Your task to perform on an android device: turn smart compose on in the gmail app Image 0: 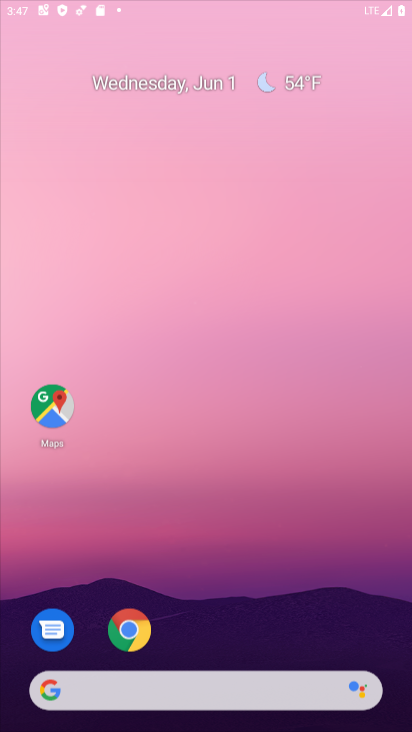
Step 0: press back button
Your task to perform on an android device: turn smart compose on in the gmail app Image 1: 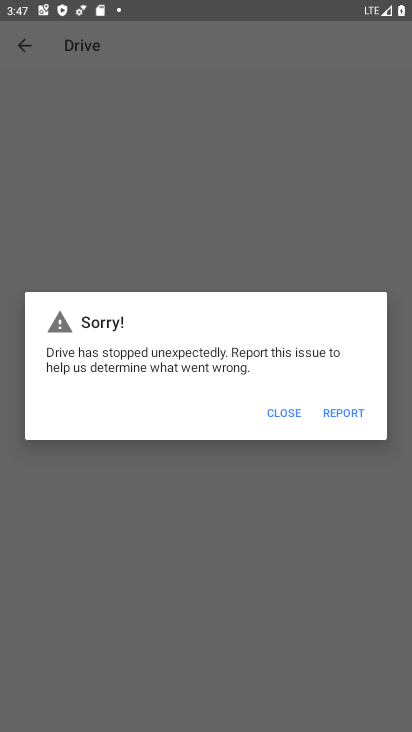
Step 1: press home button
Your task to perform on an android device: turn smart compose on in the gmail app Image 2: 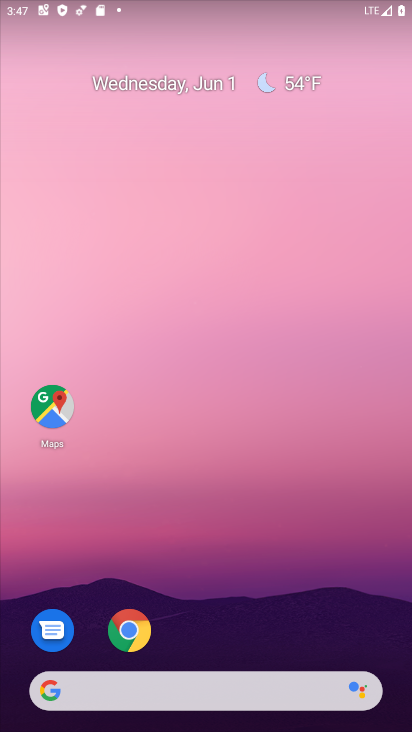
Step 2: drag from (269, 570) to (166, 2)
Your task to perform on an android device: turn smart compose on in the gmail app Image 3: 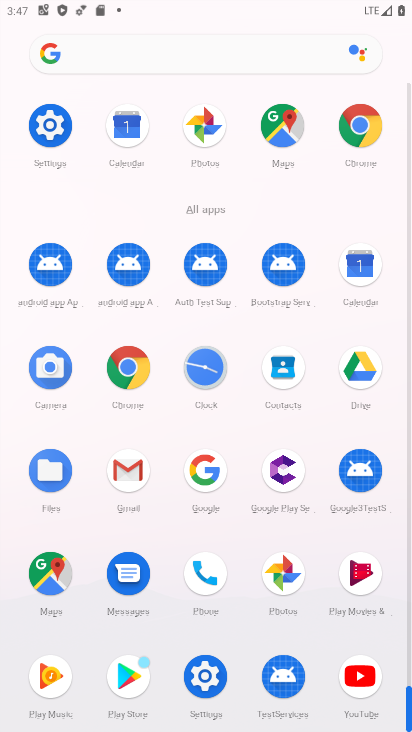
Step 3: drag from (14, 572) to (9, 182)
Your task to perform on an android device: turn smart compose on in the gmail app Image 4: 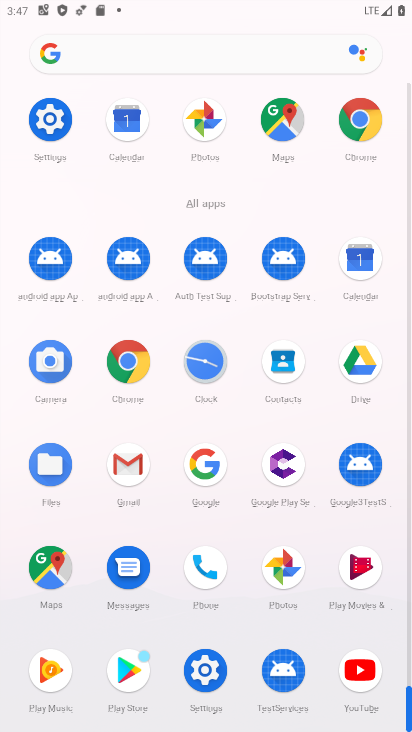
Step 4: click (124, 455)
Your task to perform on an android device: turn smart compose on in the gmail app Image 5: 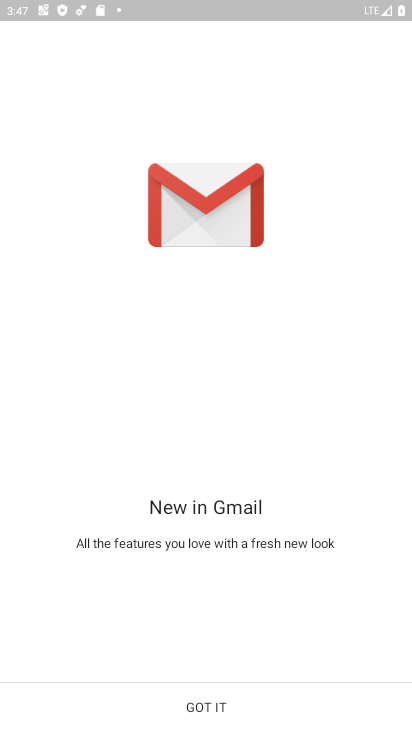
Step 5: click (204, 711)
Your task to perform on an android device: turn smart compose on in the gmail app Image 6: 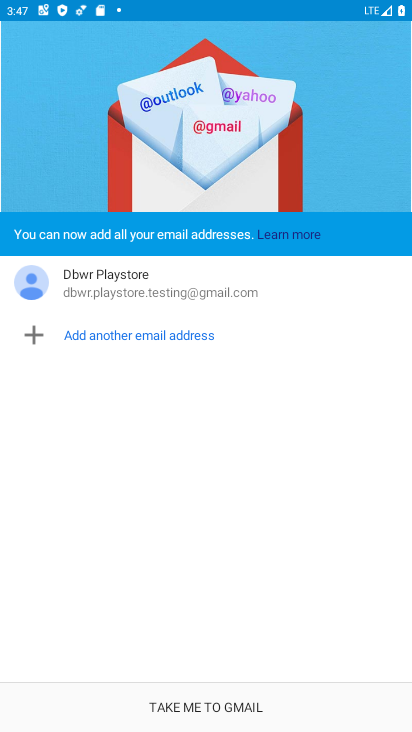
Step 6: click (205, 703)
Your task to perform on an android device: turn smart compose on in the gmail app Image 7: 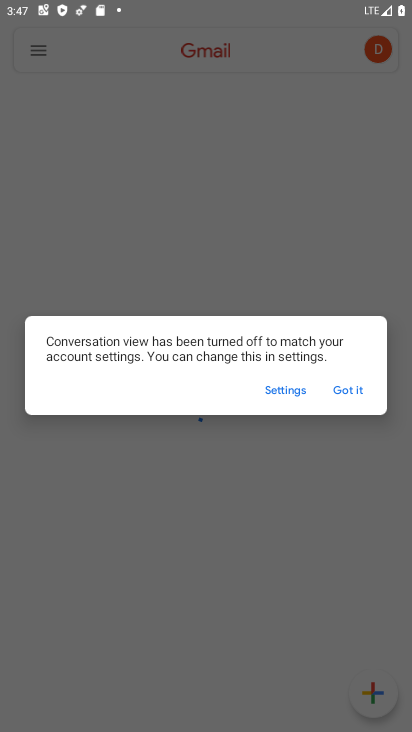
Step 7: click (343, 390)
Your task to perform on an android device: turn smart compose on in the gmail app Image 8: 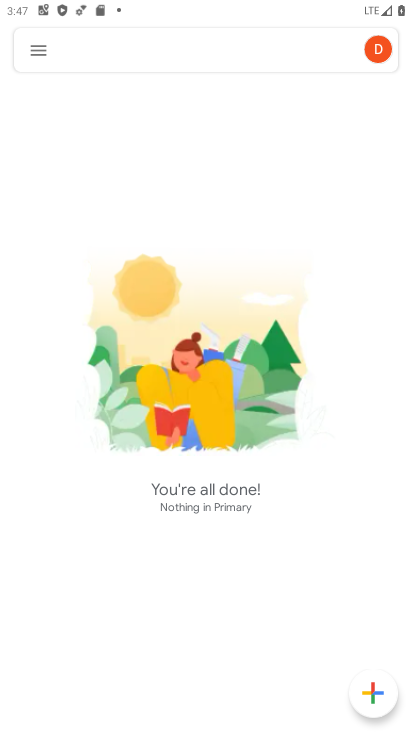
Step 8: click (43, 45)
Your task to perform on an android device: turn smart compose on in the gmail app Image 9: 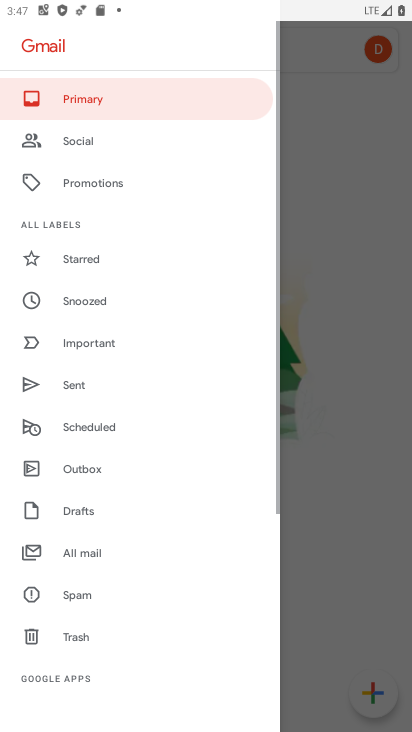
Step 9: drag from (161, 572) to (144, 103)
Your task to perform on an android device: turn smart compose on in the gmail app Image 10: 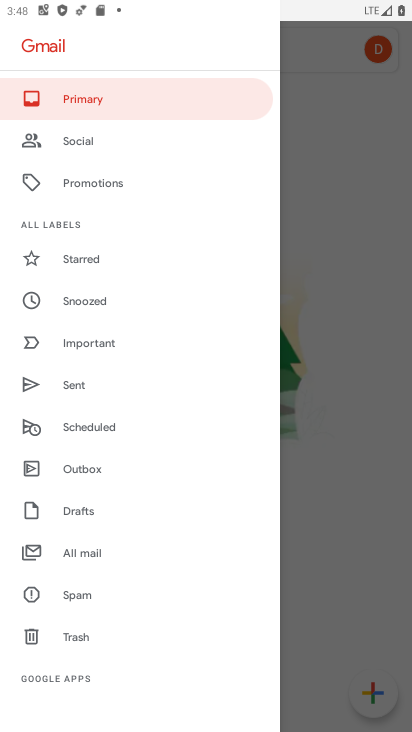
Step 10: drag from (80, 679) to (104, 212)
Your task to perform on an android device: turn smart compose on in the gmail app Image 11: 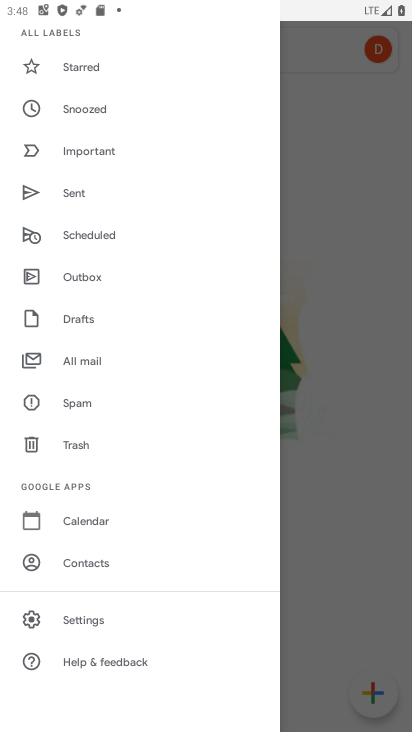
Step 11: click (91, 615)
Your task to perform on an android device: turn smart compose on in the gmail app Image 12: 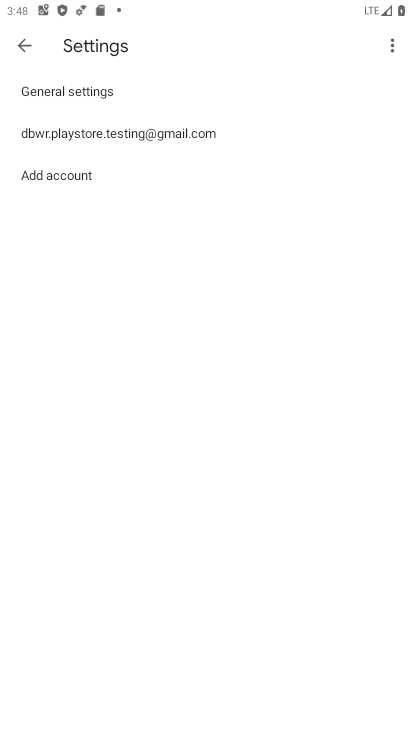
Step 12: click (112, 132)
Your task to perform on an android device: turn smart compose on in the gmail app Image 13: 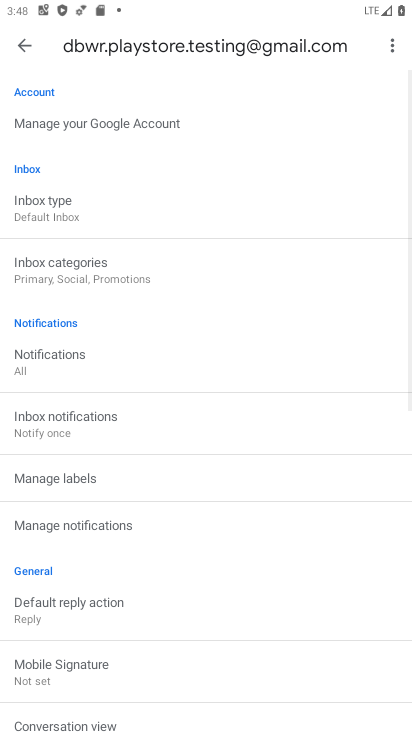
Step 13: task complete